Your task to perform on an android device: Open Chrome and go to settings Image 0: 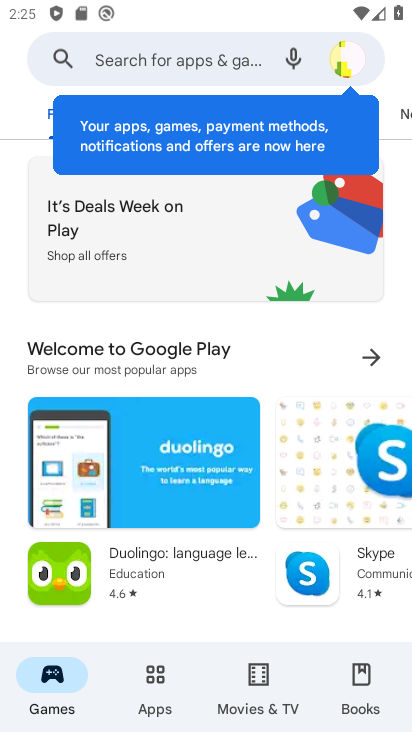
Step 0: press home button
Your task to perform on an android device: Open Chrome and go to settings Image 1: 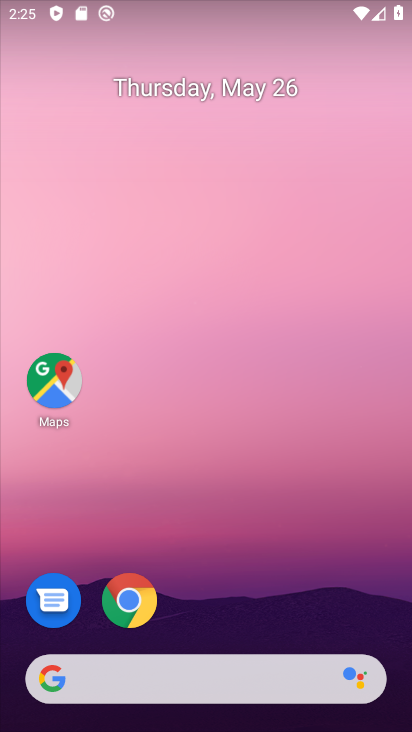
Step 1: click (127, 619)
Your task to perform on an android device: Open Chrome and go to settings Image 2: 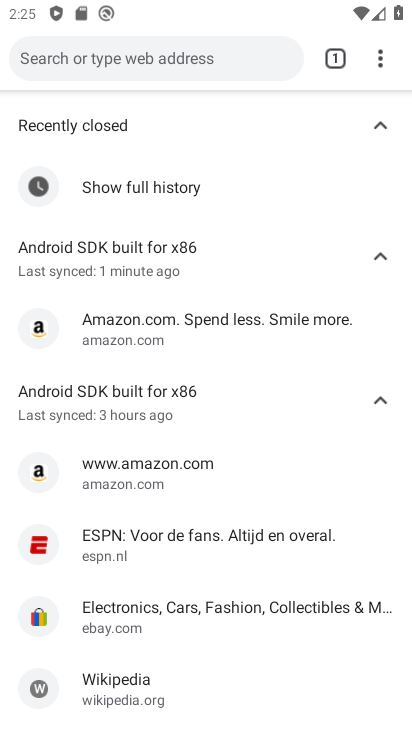
Step 2: click (390, 56)
Your task to perform on an android device: Open Chrome and go to settings Image 3: 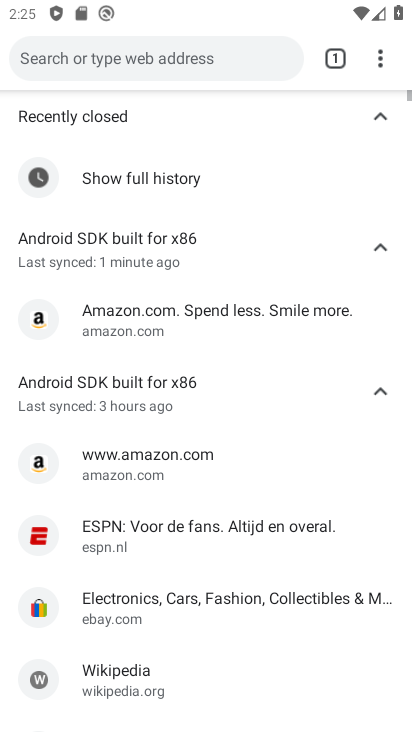
Step 3: click (407, 55)
Your task to perform on an android device: Open Chrome and go to settings Image 4: 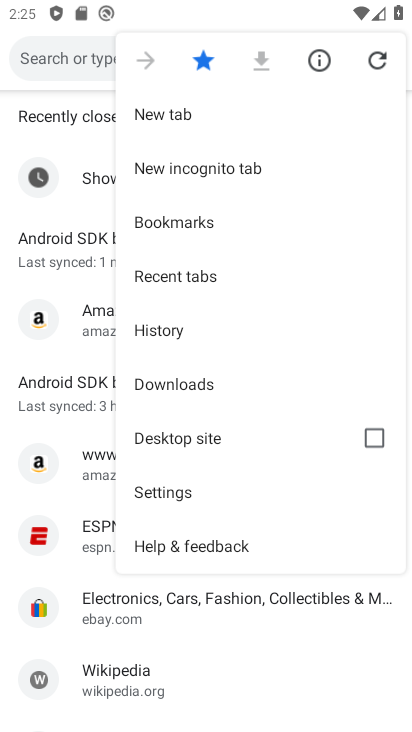
Step 4: click (382, 49)
Your task to perform on an android device: Open Chrome and go to settings Image 5: 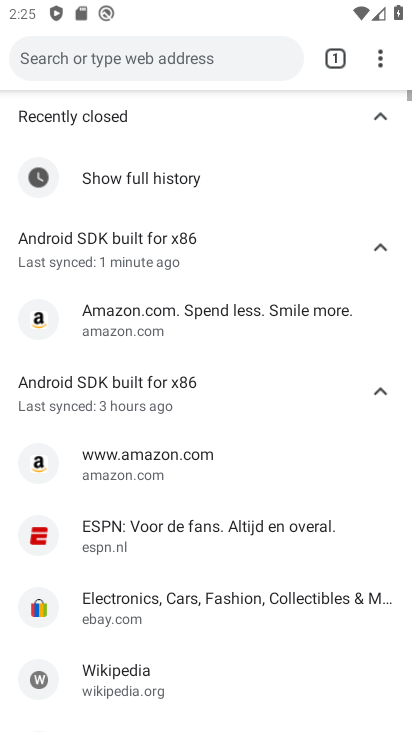
Step 5: click (378, 54)
Your task to perform on an android device: Open Chrome and go to settings Image 6: 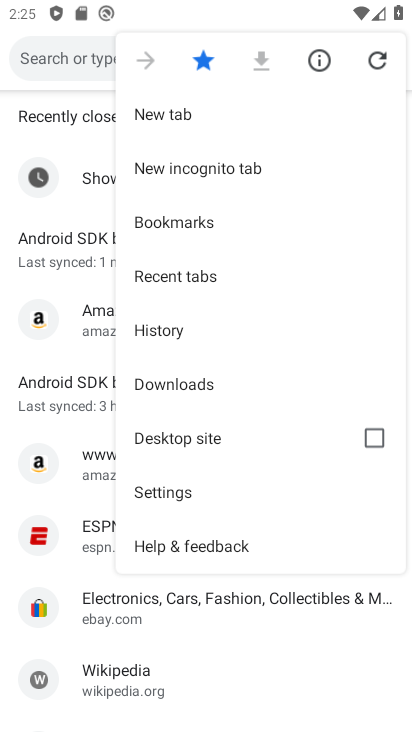
Step 6: click (162, 508)
Your task to perform on an android device: Open Chrome and go to settings Image 7: 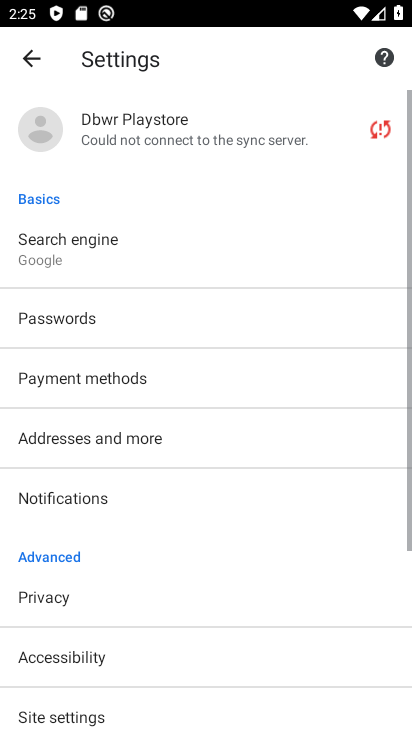
Step 7: task complete